Your task to perform on an android device: check out phone information Image 0: 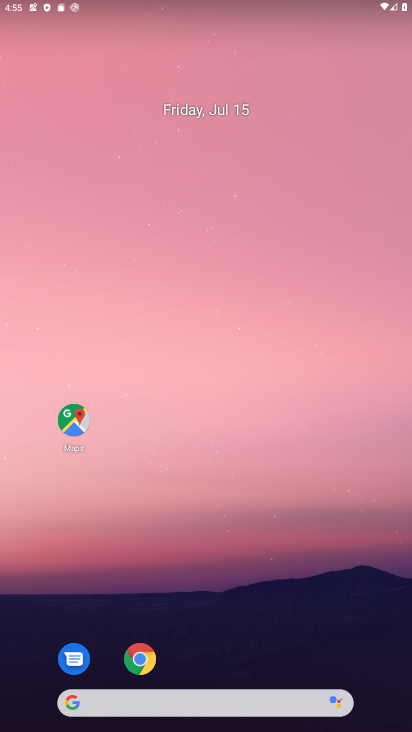
Step 0: drag from (279, 633) to (275, 49)
Your task to perform on an android device: check out phone information Image 1: 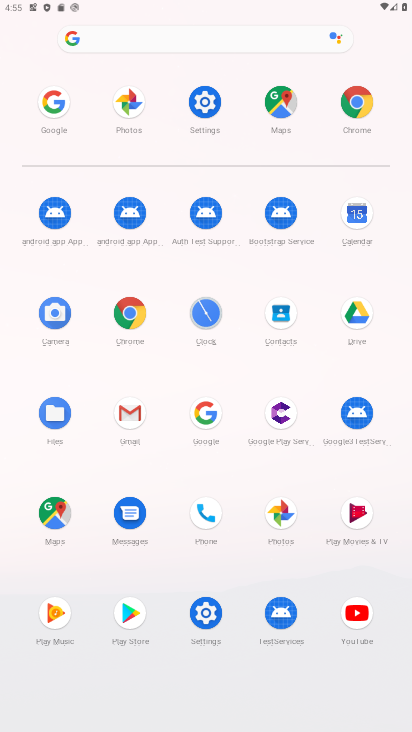
Step 1: click (192, 103)
Your task to perform on an android device: check out phone information Image 2: 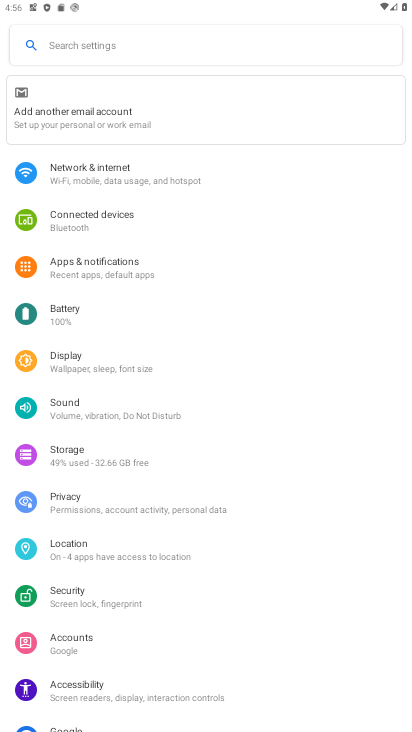
Step 2: drag from (132, 616) to (123, 95)
Your task to perform on an android device: check out phone information Image 3: 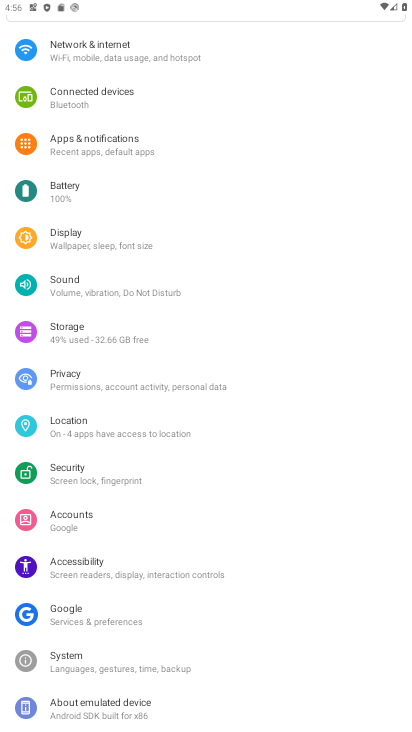
Step 3: click (120, 716)
Your task to perform on an android device: check out phone information Image 4: 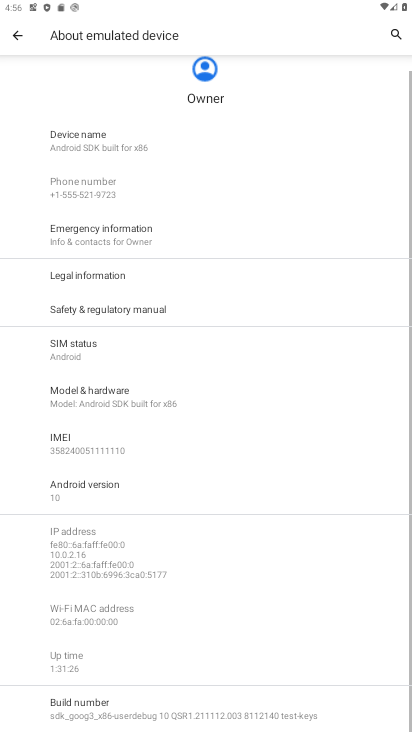
Step 4: task complete